Your task to perform on an android device: Open display settings Image 0: 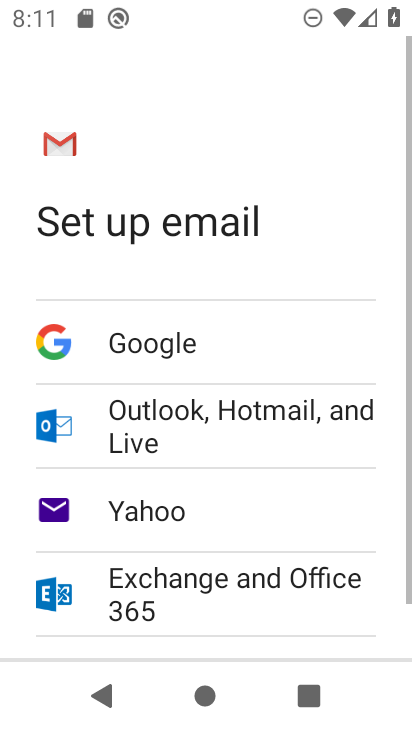
Step 0: press home button
Your task to perform on an android device: Open display settings Image 1: 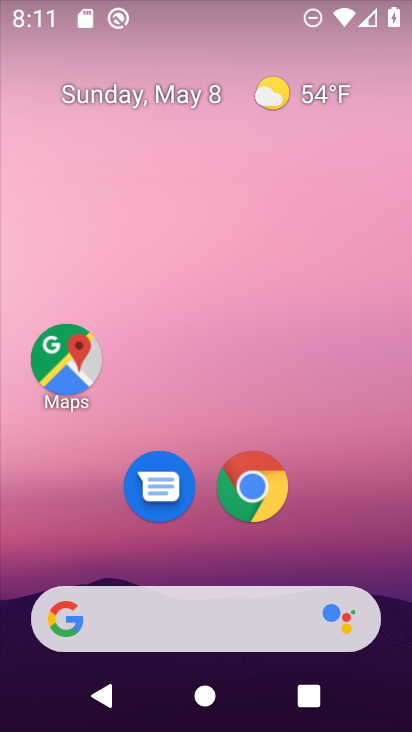
Step 1: drag from (211, 564) to (276, 179)
Your task to perform on an android device: Open display settings Image 2: 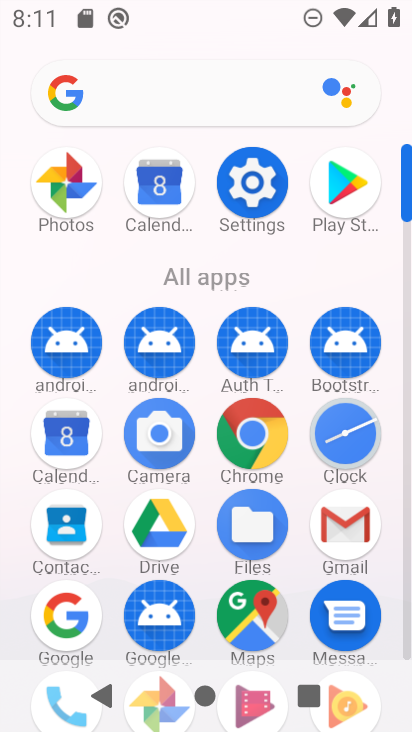
Step 2: click (251, 187)
Your task to perform on an android device: Open display settings Image 3: 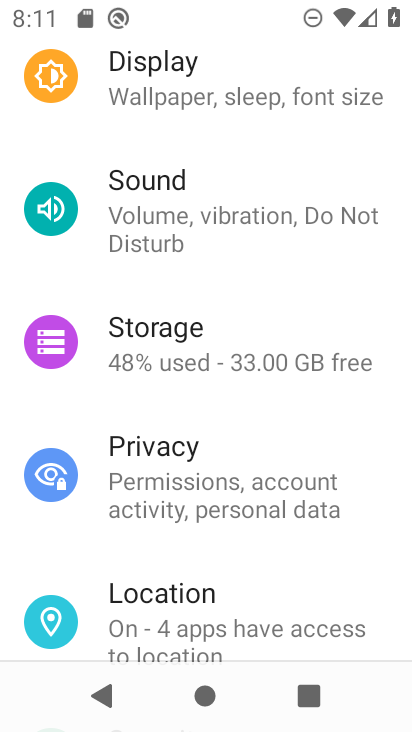
Step 3: click (188, 96)
Your task to perform on an android device: Open display settings Image 4: 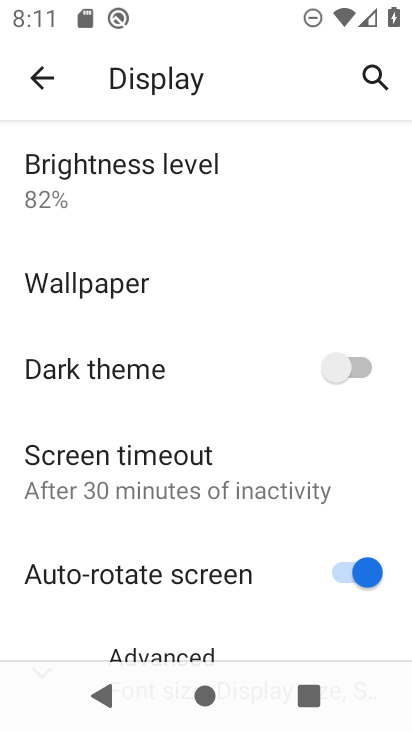
Step 4: task complete